Your task to perform on an android device: Open CNN.com Image 0: 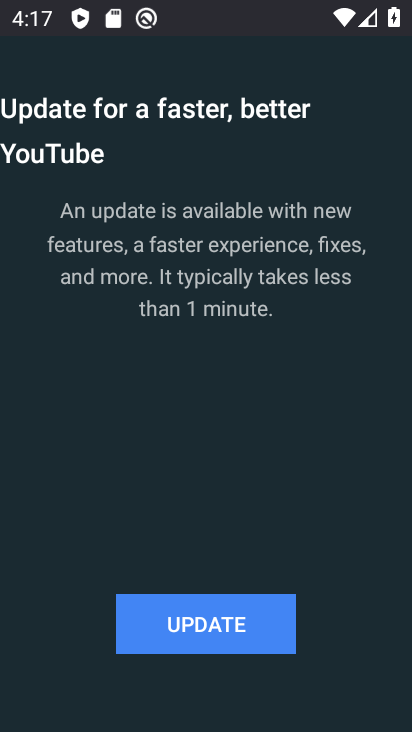
Step 0: press home button
Your task to perform on an android device: Open CNN.com Image 1: 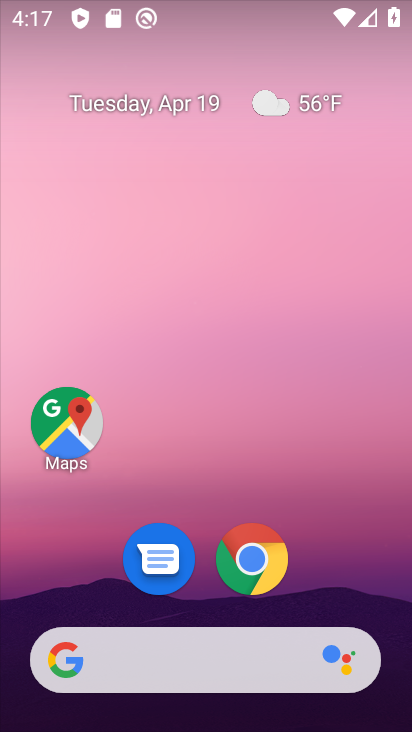
Step 1: click (263, 561)
Your task to perform on an android device: Open CNN.com Image 2: 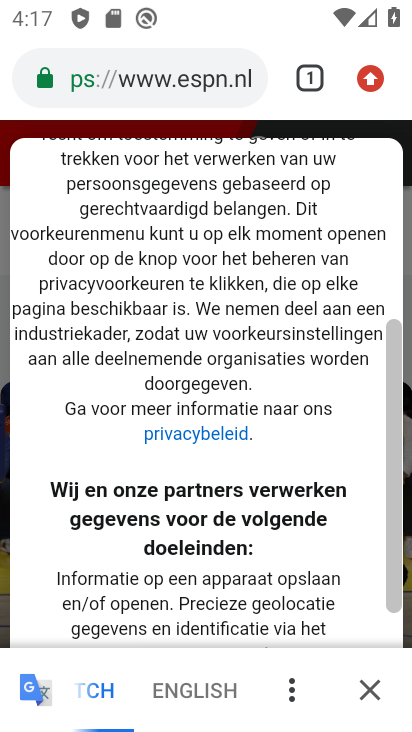
Step 2: click (253, 76)
Your task to perform on an android device: Open CNN.com Image 3: 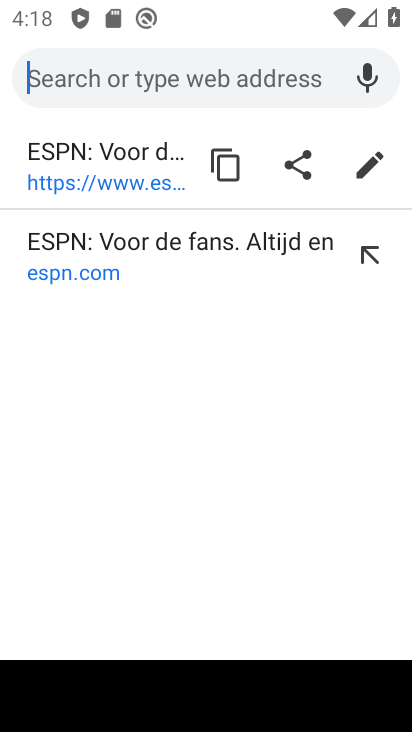
Step 3: type "CNN.com"
Your task to perform on an android device: Open CNN.com Image 4: 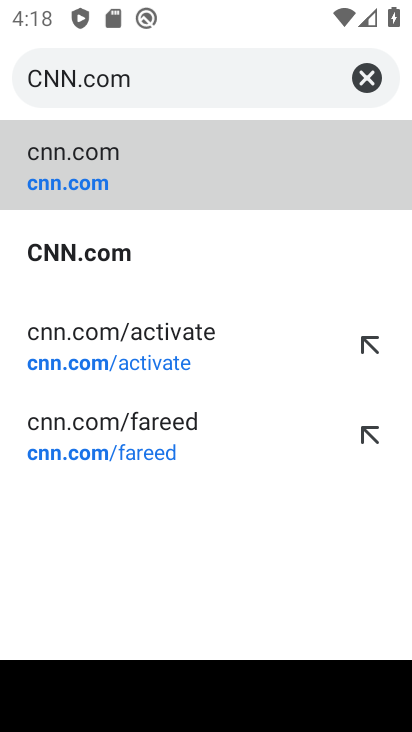
Step 4: click (78, 246)
Your task to perform on an android device: Open CNN.com Image 5: 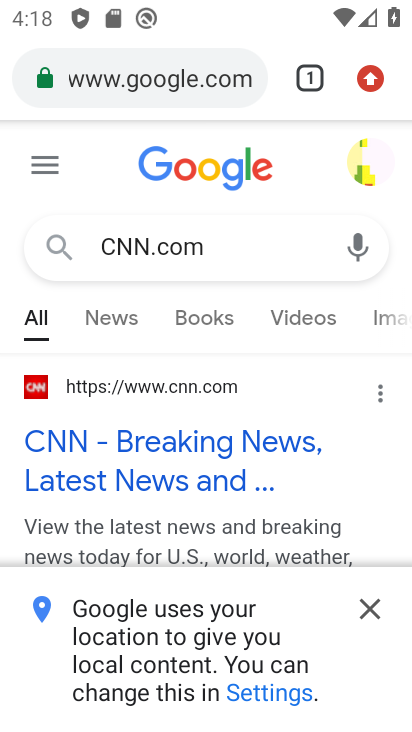
Step 5: task complete